Your task to perform on an android device: Go to display settings Image 0: 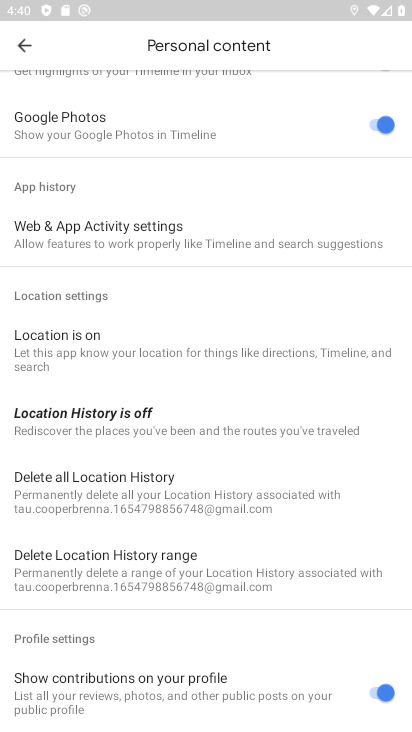
Step 0: press home button
Your task to perform on an android device: Go to display settings Image 1: 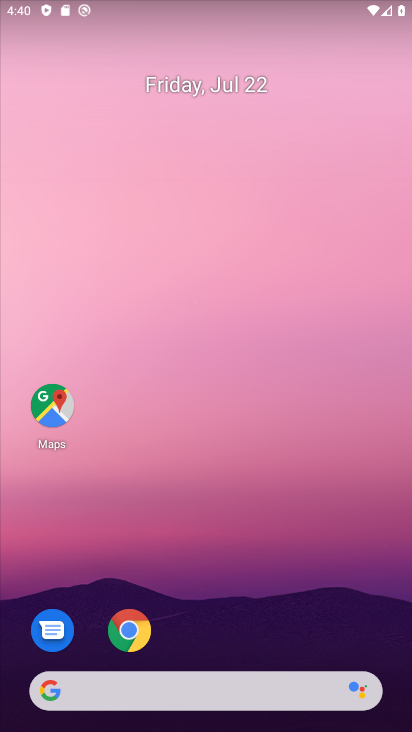
Step 1: drag from (205, 556) to (128, 92)
Your task to perform on an android device: Go to display settings Image 2: 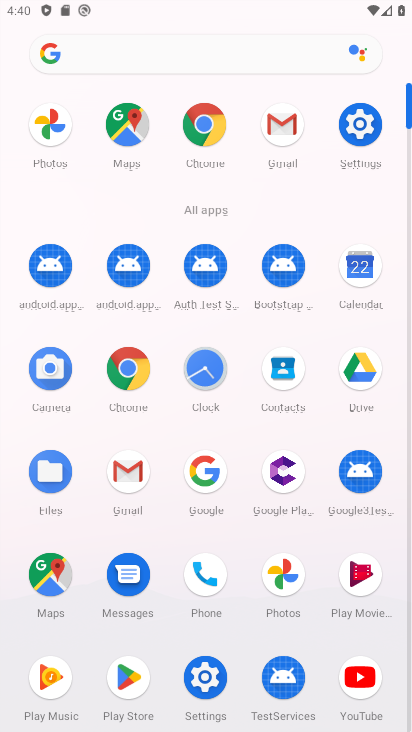
Step 2: click (361, 133)
Your task to perform on an android device: Go to display settings Image 3: 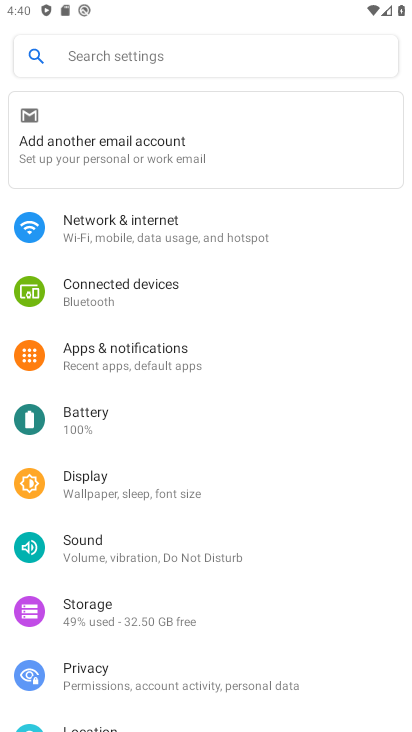
Step 3: click (74, 384)
Your task to perform on an android device: Go to display settings Image 4: 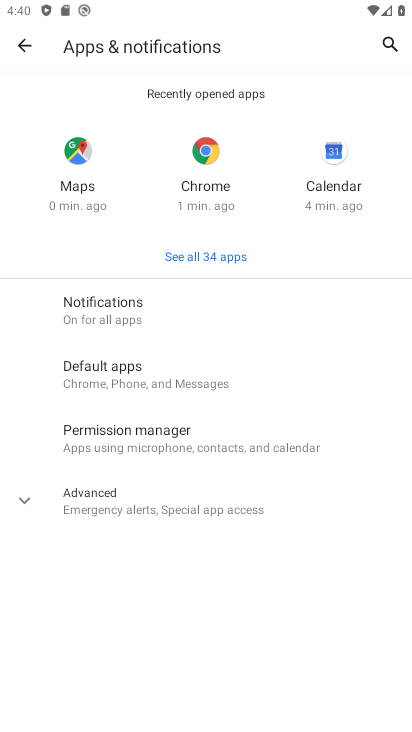
Step 4: click (22, 47)
Your task to perform on an android device: Go to display settings Image 5: 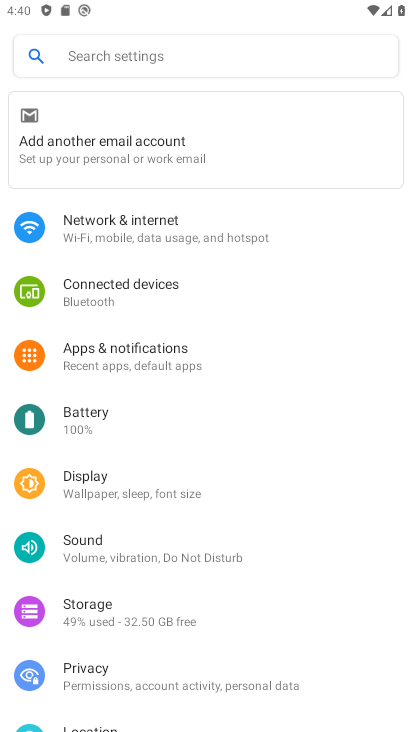
Step 5: drag from (144, 586) to (128, 355)
Your task to perform on an android device: Go to display settings Image 6: 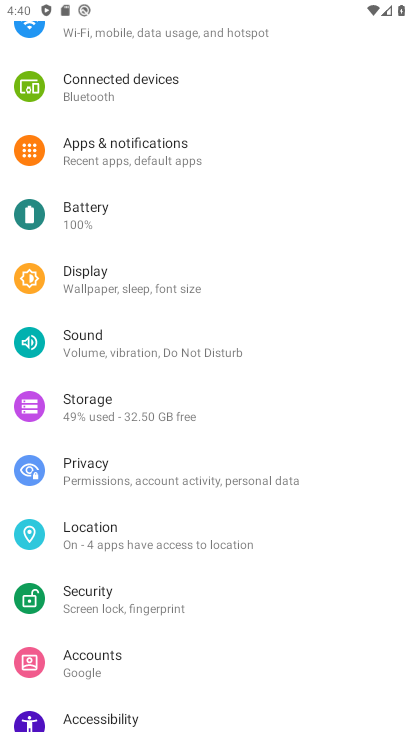
Step 6: drag from (144, 682) to (137, 369)
Your task to perform on an android device: Go to display settings Image 7: 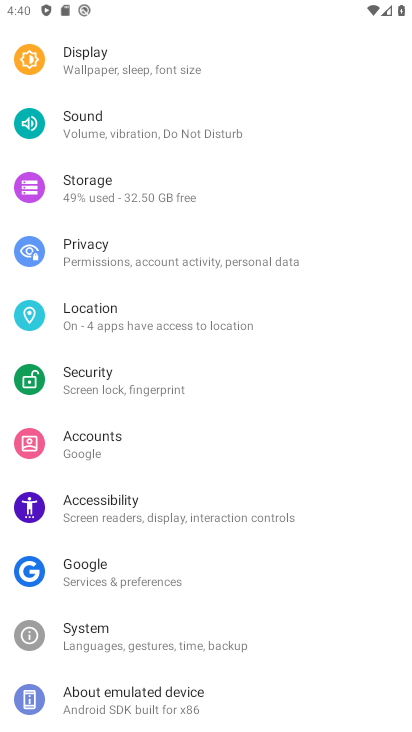
Step 7: click (94, 72)
Your task to perform on an android device: Go to display settings Image 8: 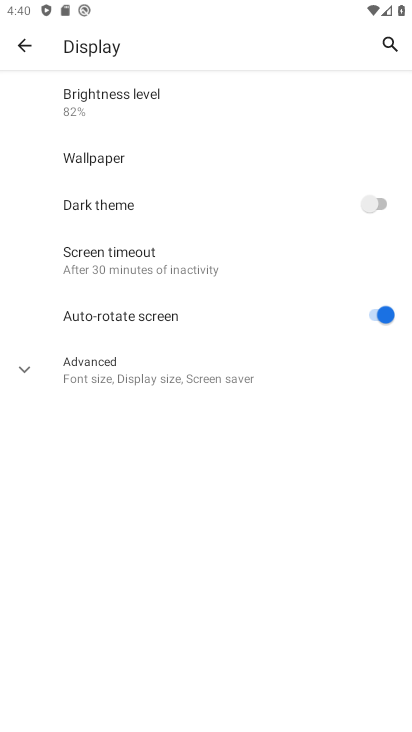
Step 8: task complete